Your task to perform on an android device: Open Maps and search for coffee Image 0: 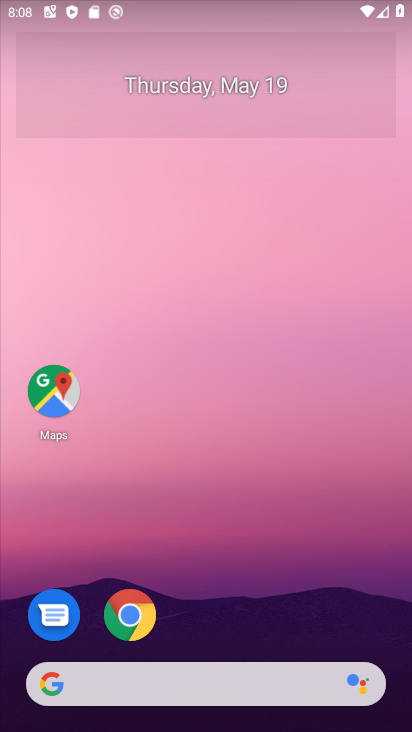
Step 0: click (59, 391)
Your task to perform on an android device: Open Maps and search for coffee Image 1: 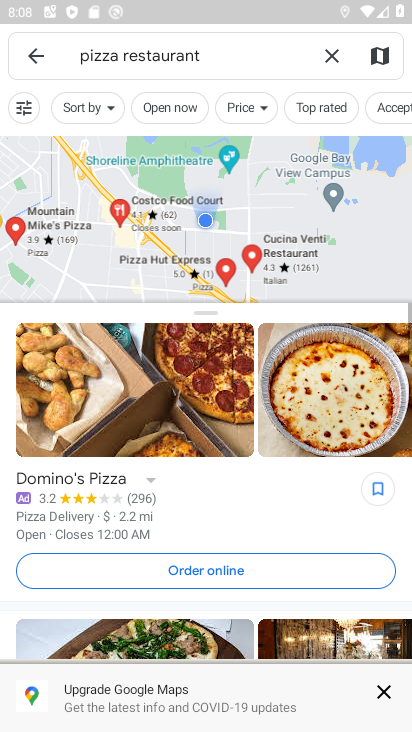
Step 1: click (323, 56)
Your task to perform on an android device: Open Maps and search for coffee Image 2: 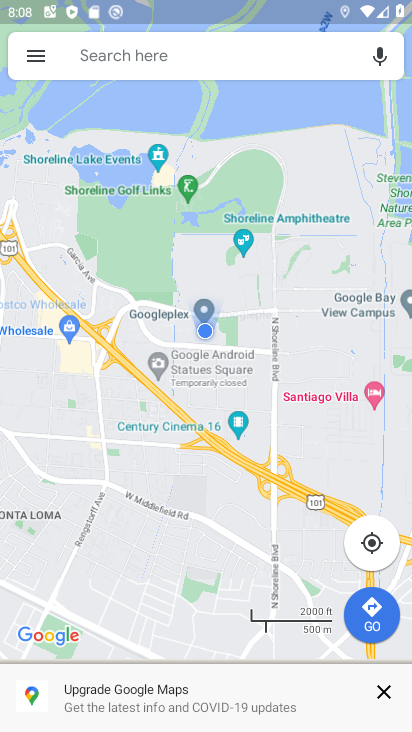
Step 2: click (186, 51)
Your task to perform on an android device: Open Maps and search for coffee Image 3: 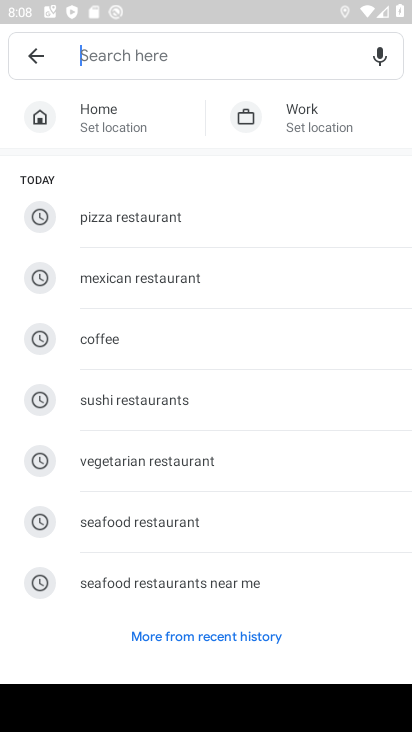
Step 3: click (139, 343)
Your task to perform on an android device: Open Maps and search for coffee Image 4: 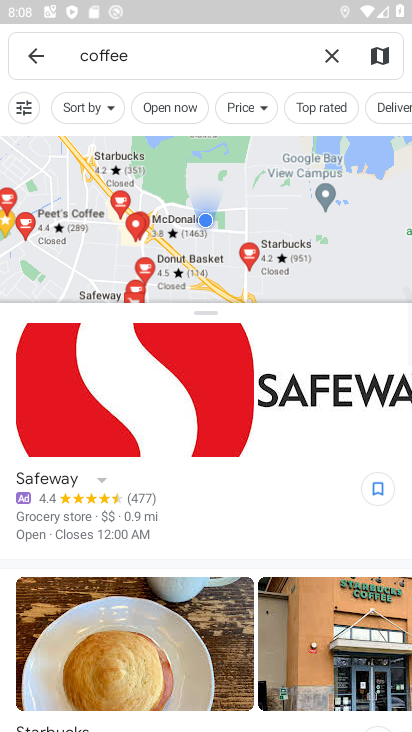
Step 4: task complete